Your task to perform on an android device: Search for Mexican restaurants on Maps Image 0: 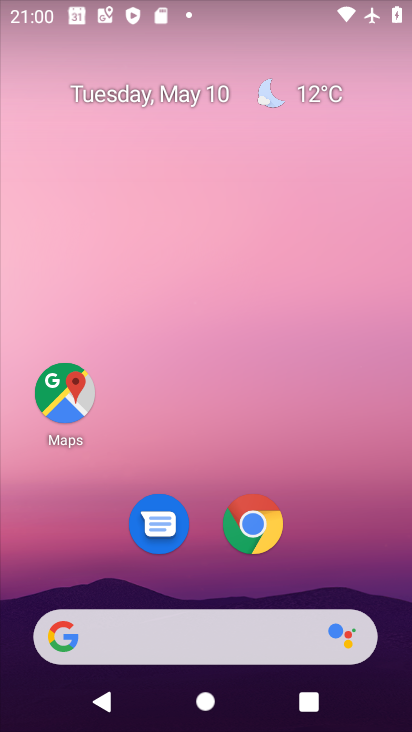
Step 0: click (48, 394)
Your task to perform on an android device: Search for Mexican restaurants on Maps Image 1: 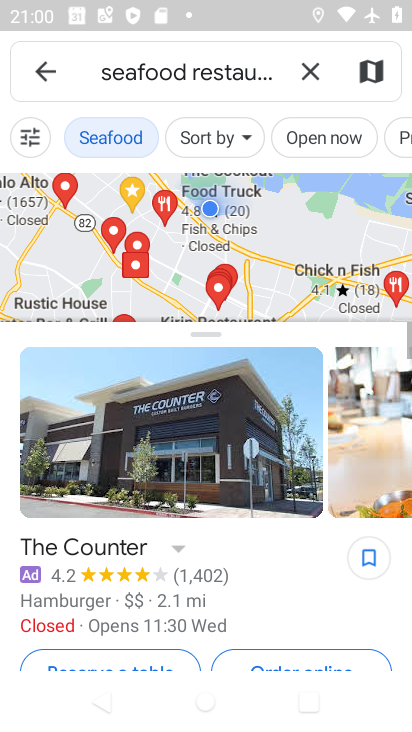
Step 1: click (311, 67)
Your task to perform on an android device: Search for Mexican restaurants on Maps Image 2: 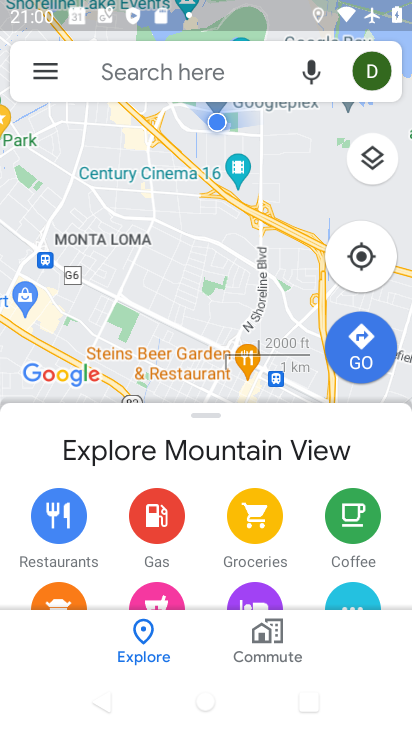
Step 2: click (214, 70)
Your task to perform on an android device: Search for Mexican restaurants on Maps Image 3: 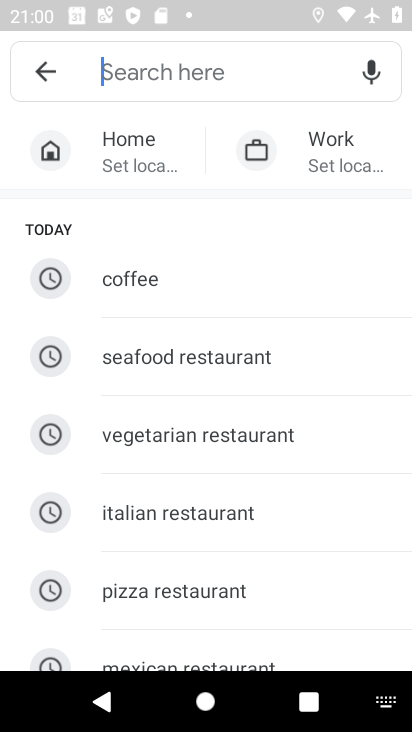
Step 3: drag from (212, 459) to (227, 304)
Your task to perform on an android device: Search for Mexican restaurants on Maps Image 4: 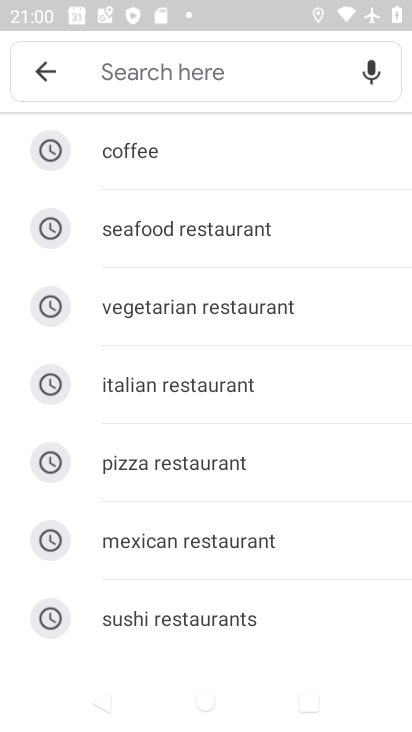
Step 4: click (232, 534)
Your task to perform on an android device: Search for Mexican restaurants on Maps Image 5: 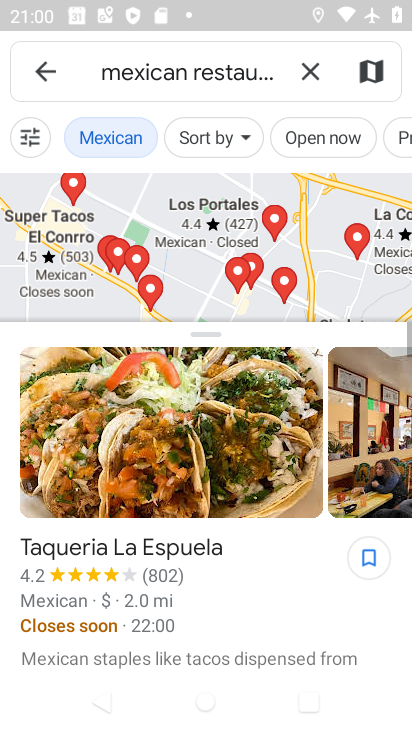
Step 5: task complete